Your task to perform on an android device: Go to Maps Image 0: 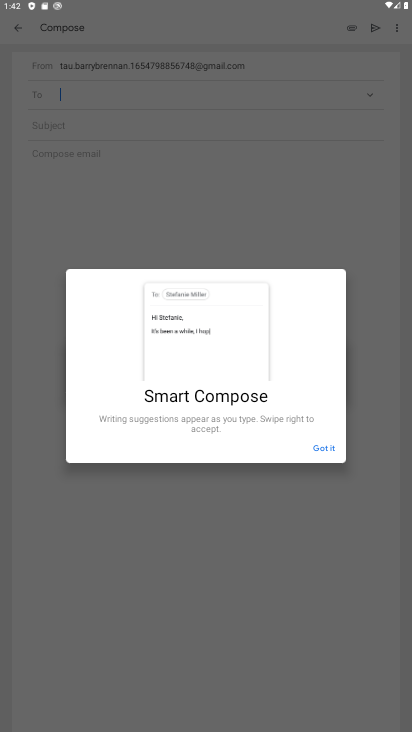
Step 0: press home button
Your task to perform on an android device: Go to Maps Image 1: 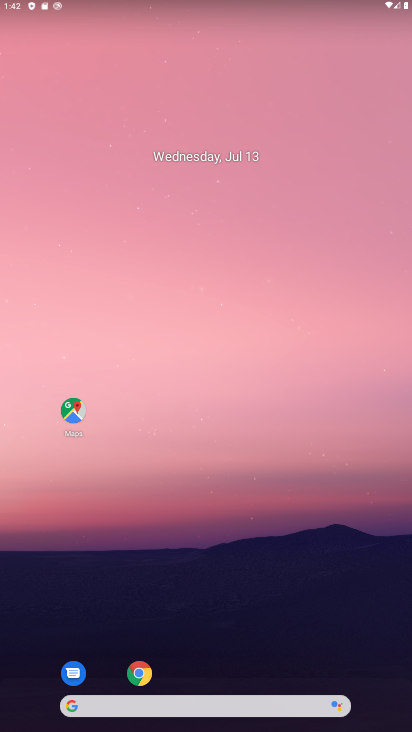
Step 1: drag from (296, 693) to (270, 51)
Your task to perform on an android device: Go to Maps Image 2: 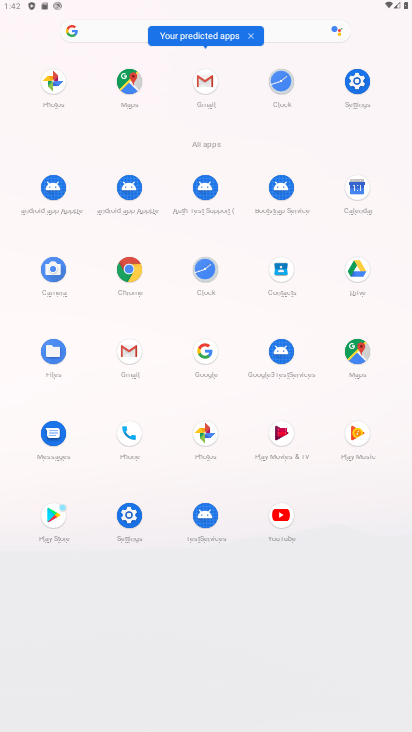
Step 2: click (358, 350)
Your task to perform on an android device: Go to Maps Image 3: 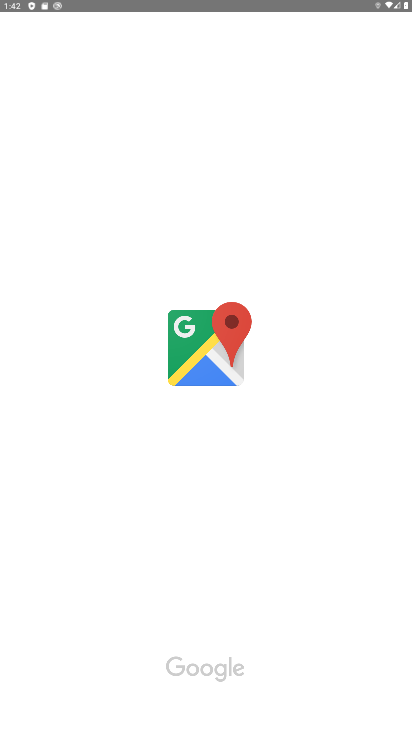
Step 3: task complete